Your task to perform on an android device: Is it going to rain today? Image 0: 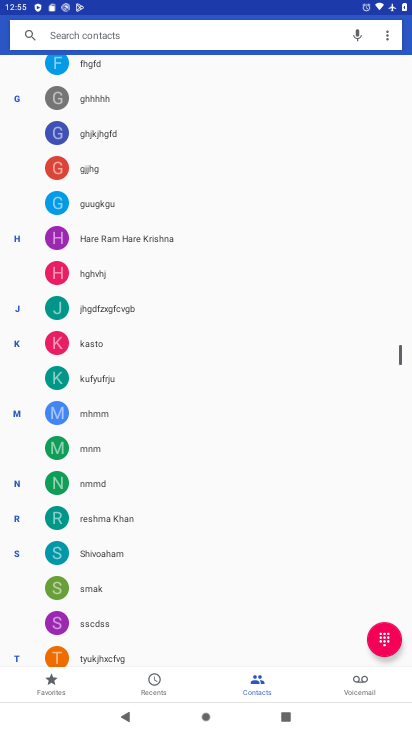
Step 0: press home button
Your task to perform on an android device: Is it going to rain today? Image 1: 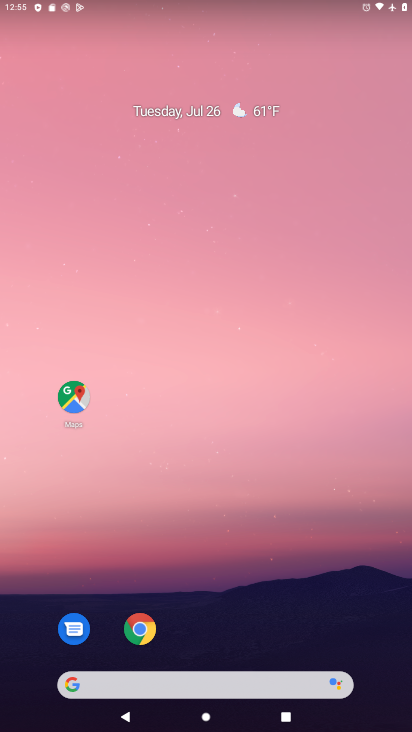
Step 1: drag from (203, 653) to (203, 68)
Your task to perform on an android device: Is it going to rain today? Image 2: 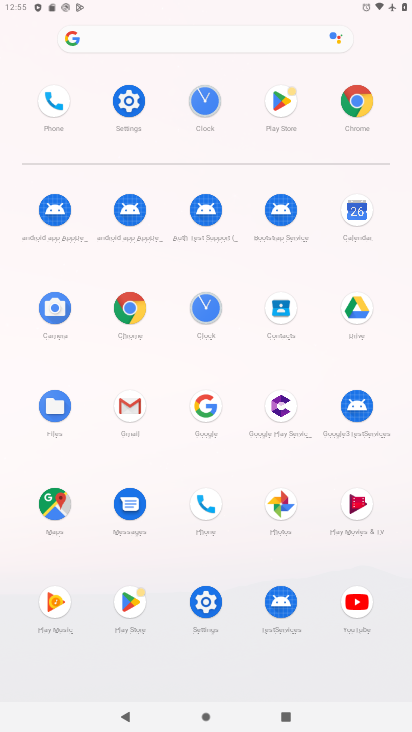
Step 2: click (209, 404)
Your task to perform on an android device: Is it going to rain today? Image 3: 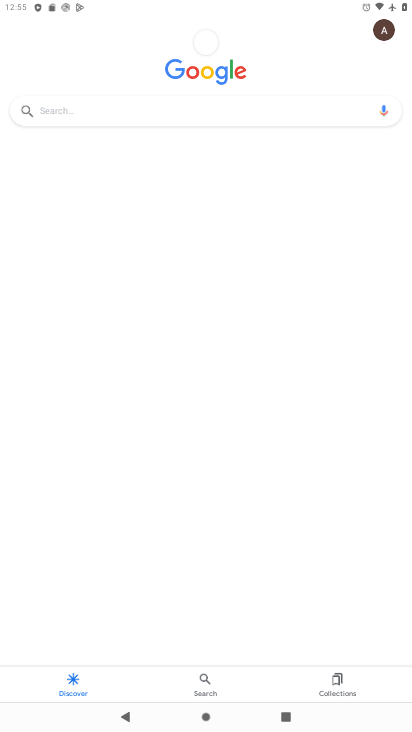
Step 3: click (143, 115)
Your task to perform on an android device: Is it going to rain today? Image 4: 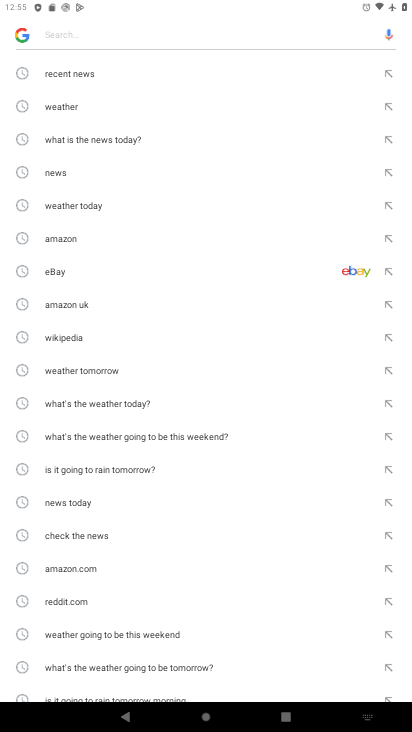
Step 4: click (51, 108)
Your task to perform on an android device: Is it going to rain today? Image 5: 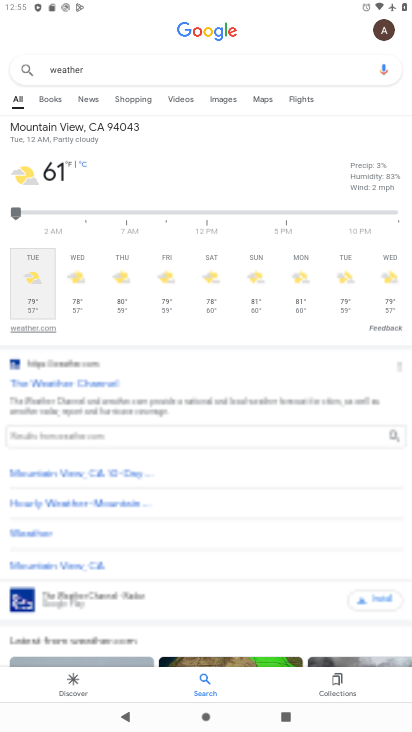
Step 5: click (30, 286)
Your task to perform on an android device: Is it going to rain today? Image 6: 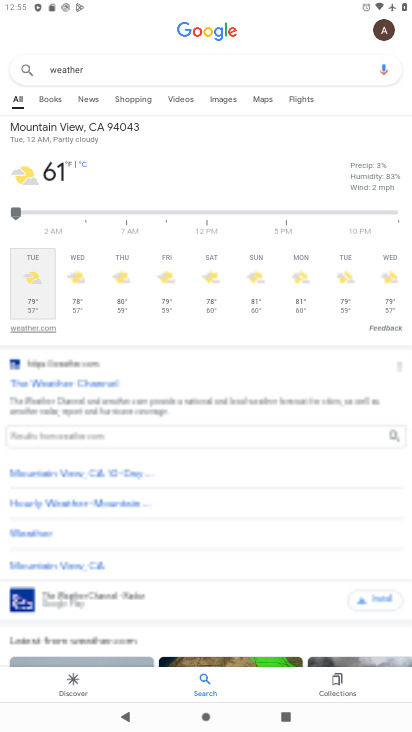
Step 6: task complete